Your task to perform on an android device: Search for Italian restaurants on Maps Image 0: 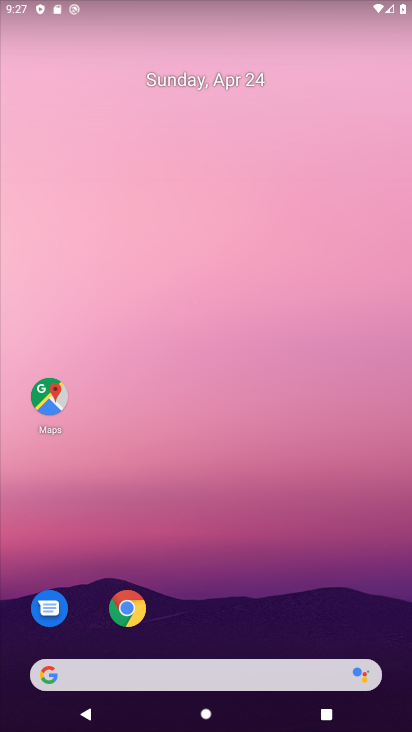
Step 0: drag from (253, 703) to (217, 285)
Your task to perform on an android device: Search for Italian restaurants on Maps Image 1: 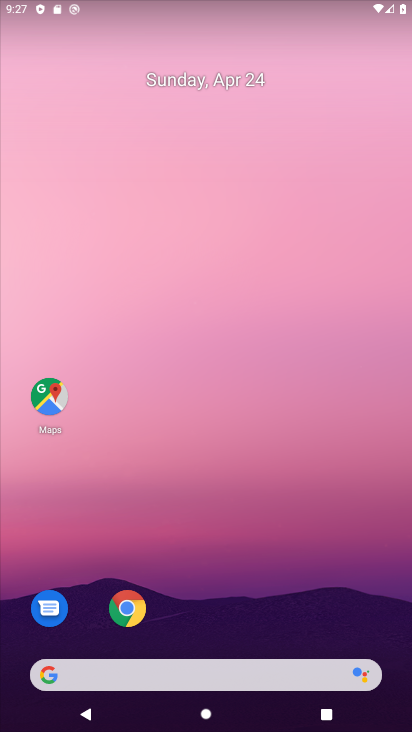
Step 1: drag from (154, 663) to (221, 148)
Your task to perform on an android device: Search for Italian restaurants on Maps Image 2: 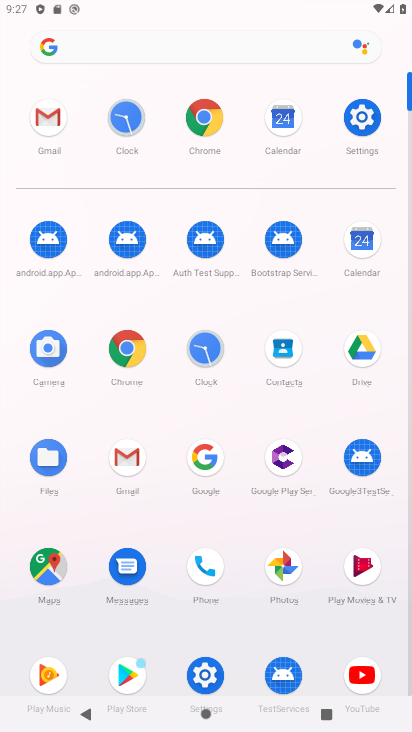
Step 2: click (54, 579)
Your task to perform on an android device: Search for Italian restaurants on Maps Image 3: 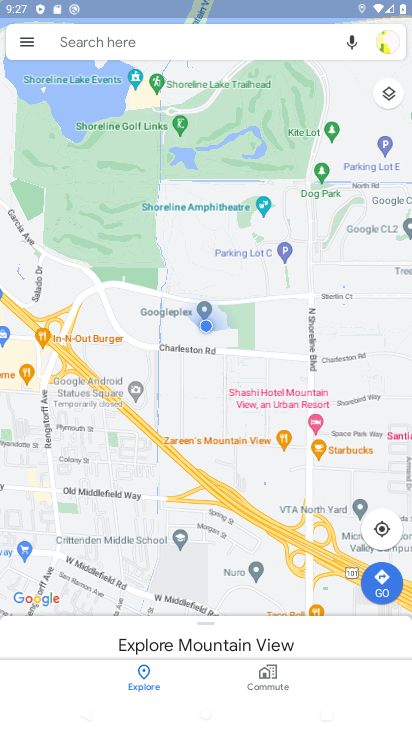
Step 3: click (111, 47)
Your task to perform on an android device: Search for Italian restaurants on Maps Image 4: 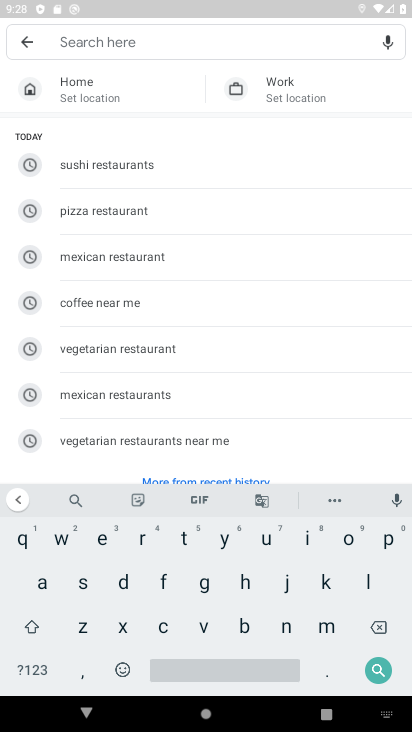
Step 4: click (311, 534)
Your task to perform on an android device: Search for Italian restaurants on Maps Image 5: 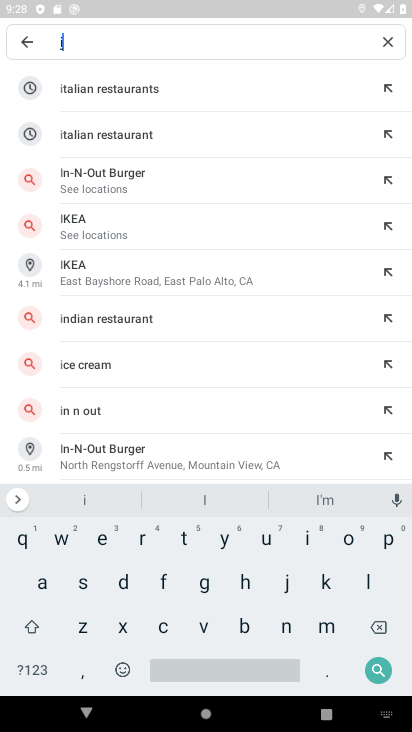
Step 5: click (128, 87)
Your task to perform on an android device: Search for Italian restaurants on Maps Image 6: 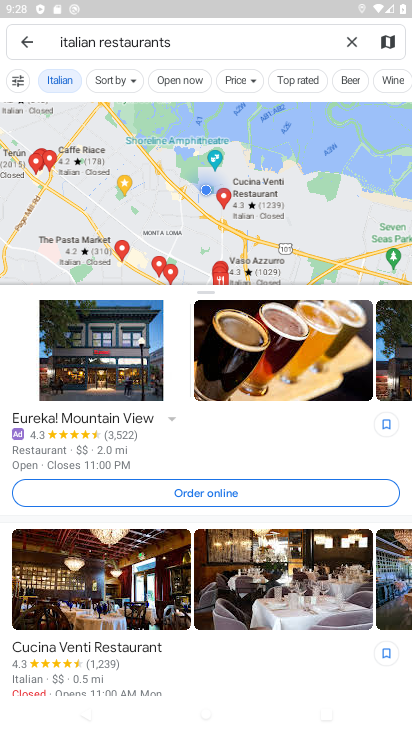
Step 6: click (163, 209)
Your task to perform on an android device: Search for Italian restaurants on Maps Image 7: 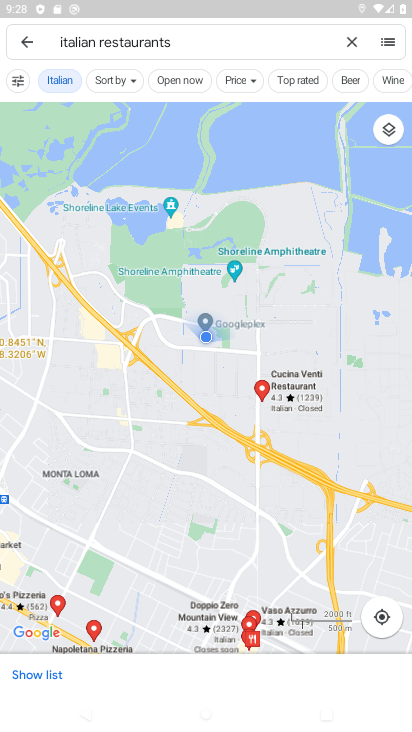
Step 7: task complete